Your task to perform on an android device: Do I have any events tomorrow? Image 0: 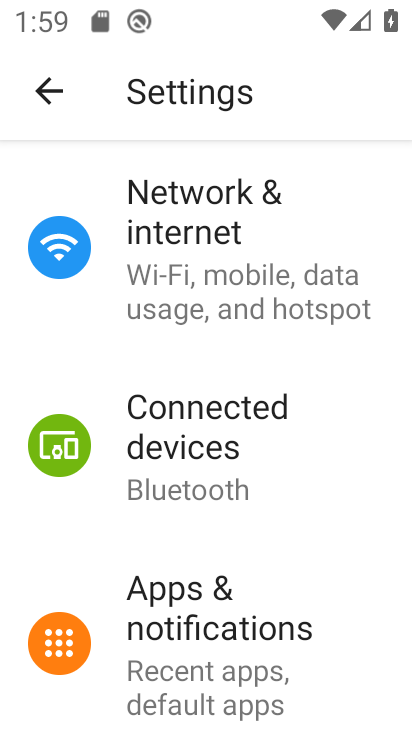
Step 0: press back button
Your task to perform on an android device: Do I have any events tomorrow? Image 1: 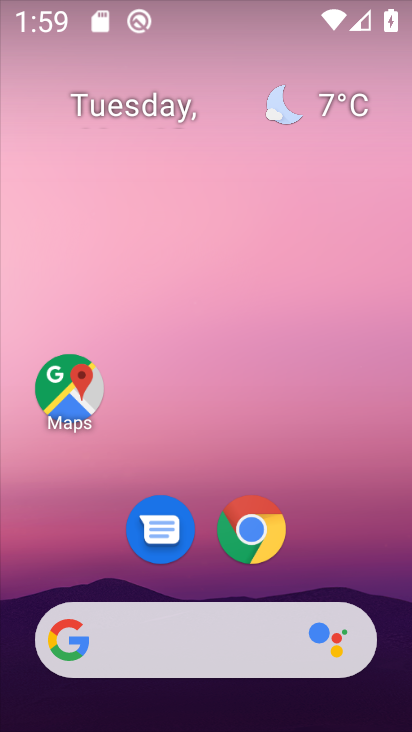
Step 1: drag from (329, 553) to (207, 13)
Your task to perform on an android device: Do I have any events tomorrow? Image 2: 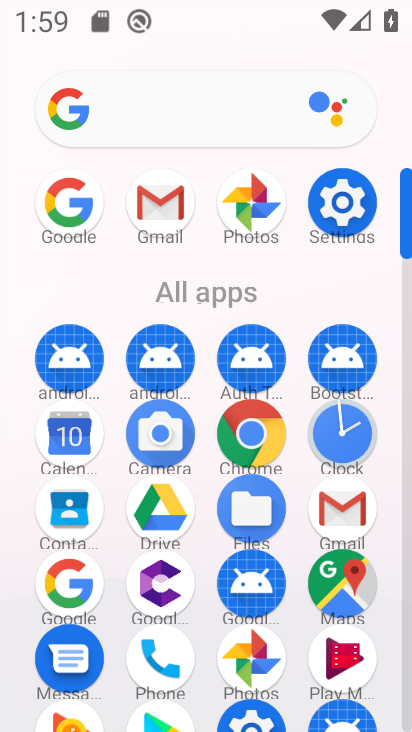
Step 2: click (71, 431)
Your task to perform on an android device: Do I have any events tomorrow? Image 3: 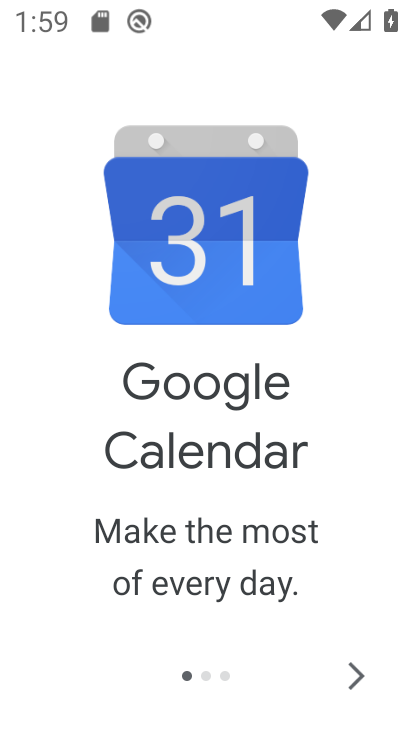
Step 3: click (362, 674)
Your task to perform on an android device: Do I have any events tomorrow? Image 4: 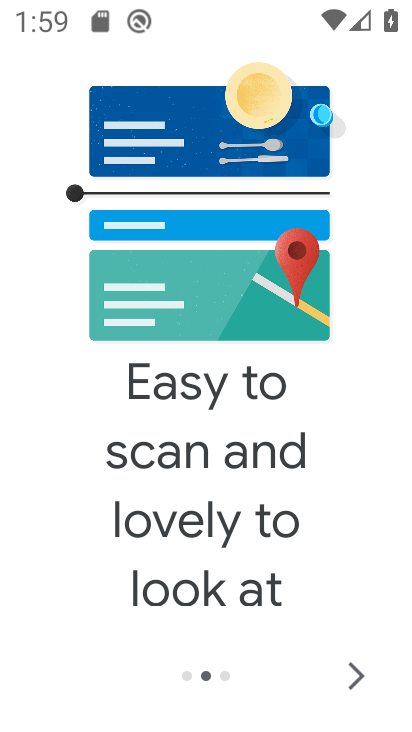
Step 4: click (361, 674)
Your task to perform on an android device: Do I have any events tomorrow? Image 5: 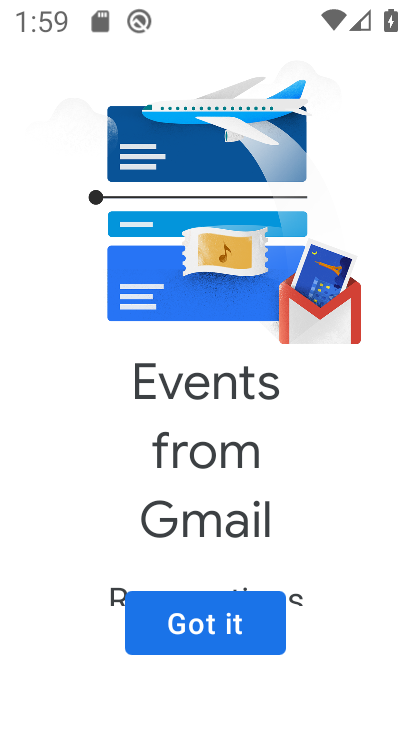
Step 5: click (361, 674)
Your task to perform on an android device: Do I have any events tomorrow? Image 6: 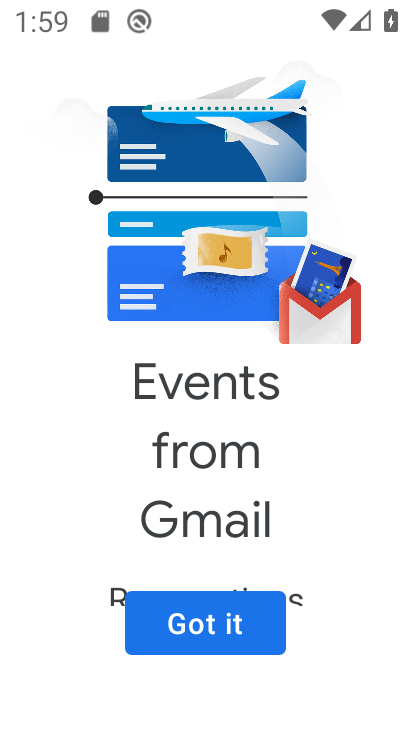
Step 6: click (234, 615)
Your task to perform on an android device: Do I have any events tomorrow? Image 7: 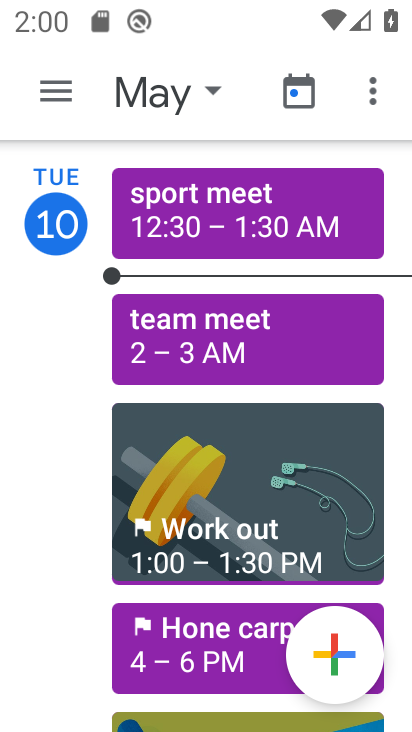
Step 7: click (215, 82)
Your task to perform on an android device: Do I have any events tomorrow? Image 8: 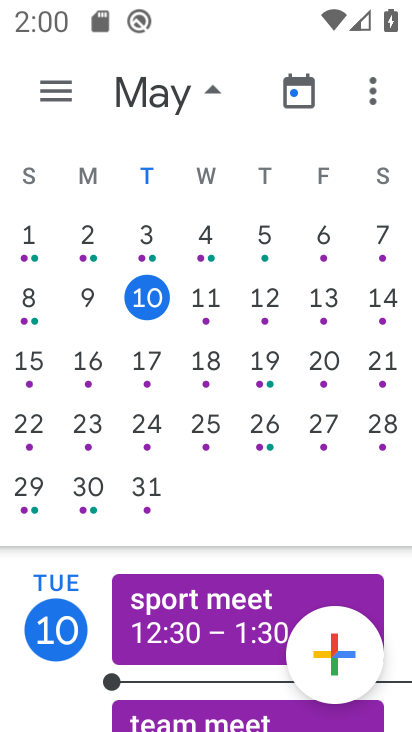
Step 8: click (201, 304)
Your task to perform on an android device: Do I have any events tomorrow? Image 9: 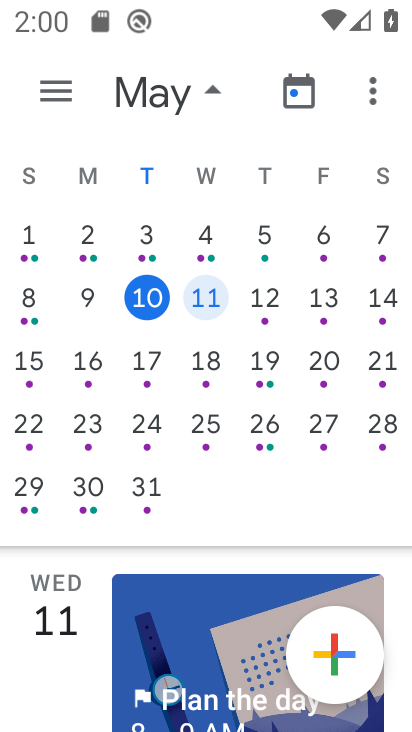
Step 9: drag from (117, 560) to (169, 431)
Your task to perform on an android device: Do I have any events tomorrow? Image 10: 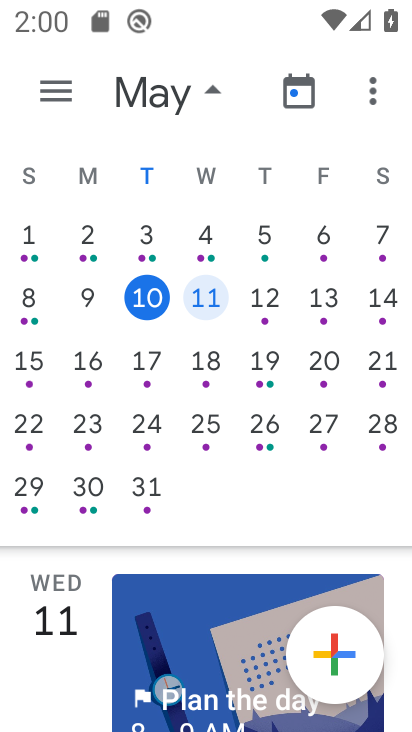
Step 10: click (48, 89)
Your task to perform on an android device: Do I have any events tomorrow? Image 11: 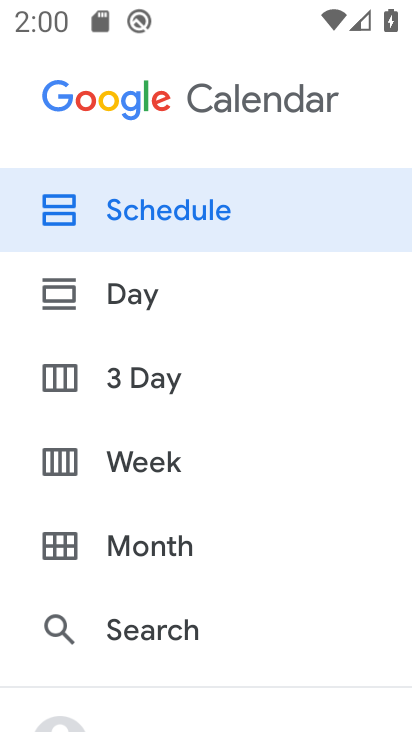
Step 11: click (179, 219)
Your task to perform on an android device: Do I have any events tomorrow? Image 12: 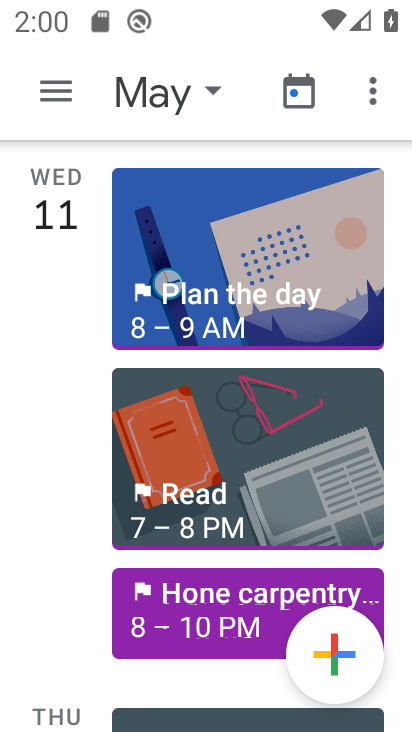
Step 12: task complete